Your task to perform on an android device: toggle wifi Image 0: 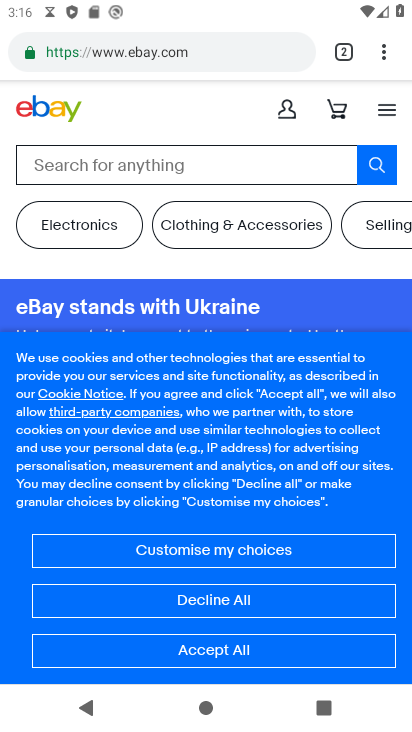
Step 0: press home button
Your task to perform on an android device: toggle wifi Image 1: 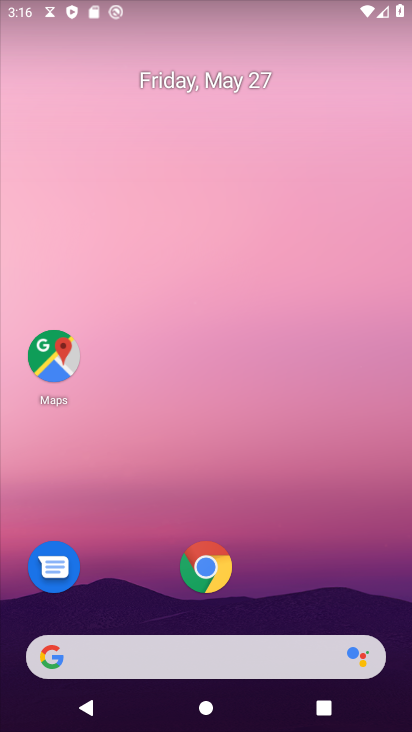
Step 1: drag from (34, 5) to (93, 499)
Your task to perform on an android device: toggle wifi Image 2: 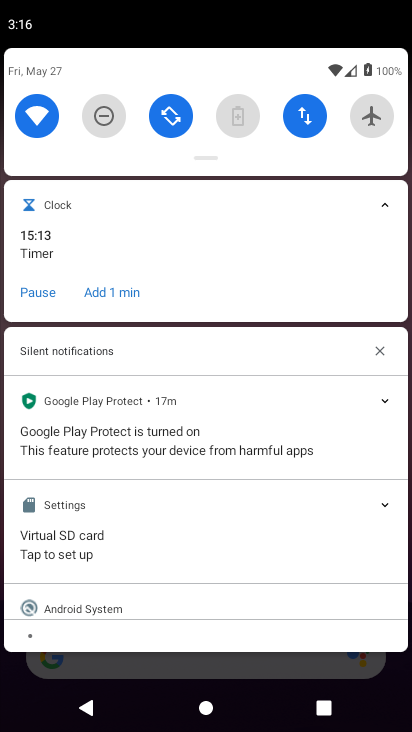
Step 2: click (35, 118)
Your task to perform on an android device: toggle wifi Image 3: 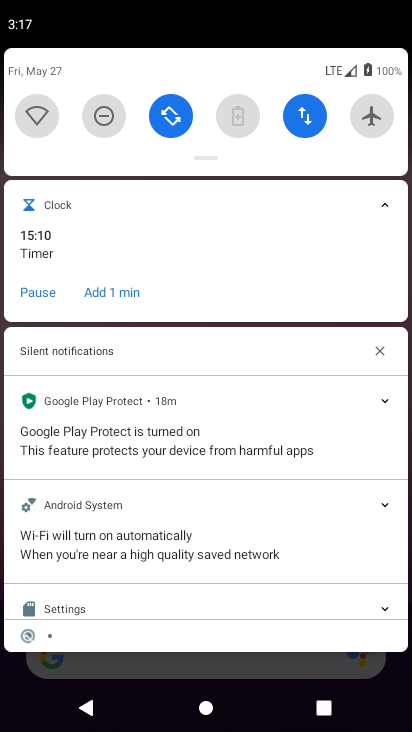
Step 3: task complete